Your task to perform on an android device: Search for "acer nitro" on bestbuy, select the first entry, add it to the cart, then select checkout. Image 0: 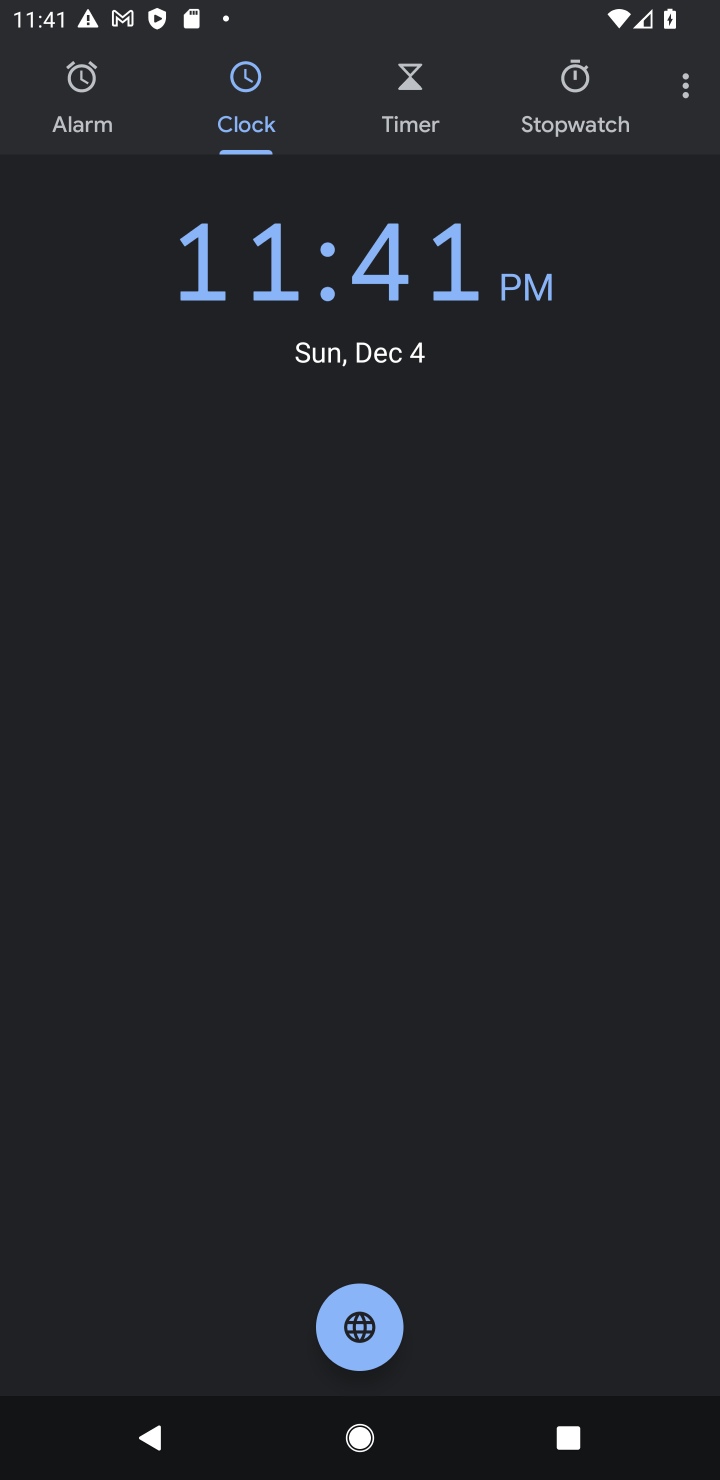
Step 0: press home button
Your task to perform on an android device: Search for "acer nitro" on bestbuy, select the first entry, add it to the cart, then select checkout. Image 1: 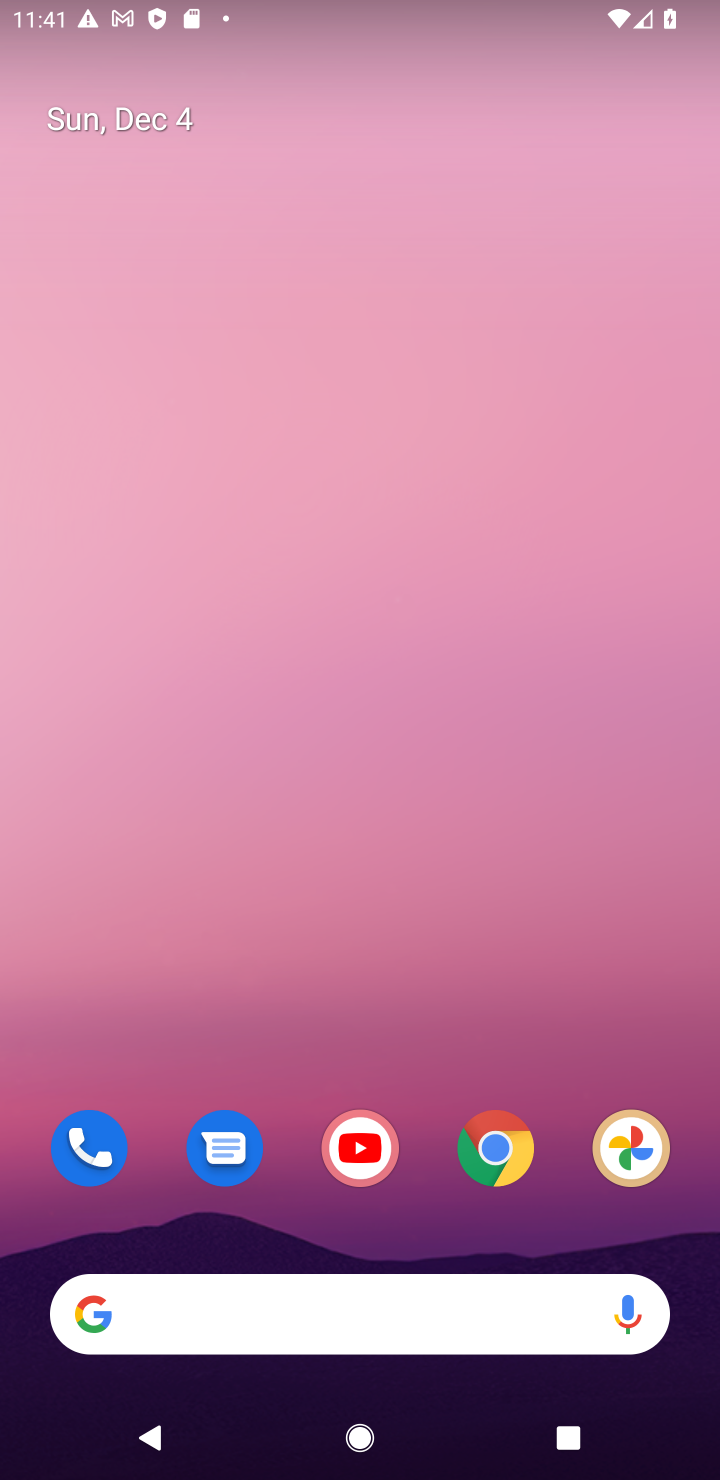
Step 1: drag from (394, 1297) to (363, 377)
Your task to perform on an android device: Search for "acer nitro" on bestbuy, select the first entry, add it to the cart, then select checkout. Image 2: 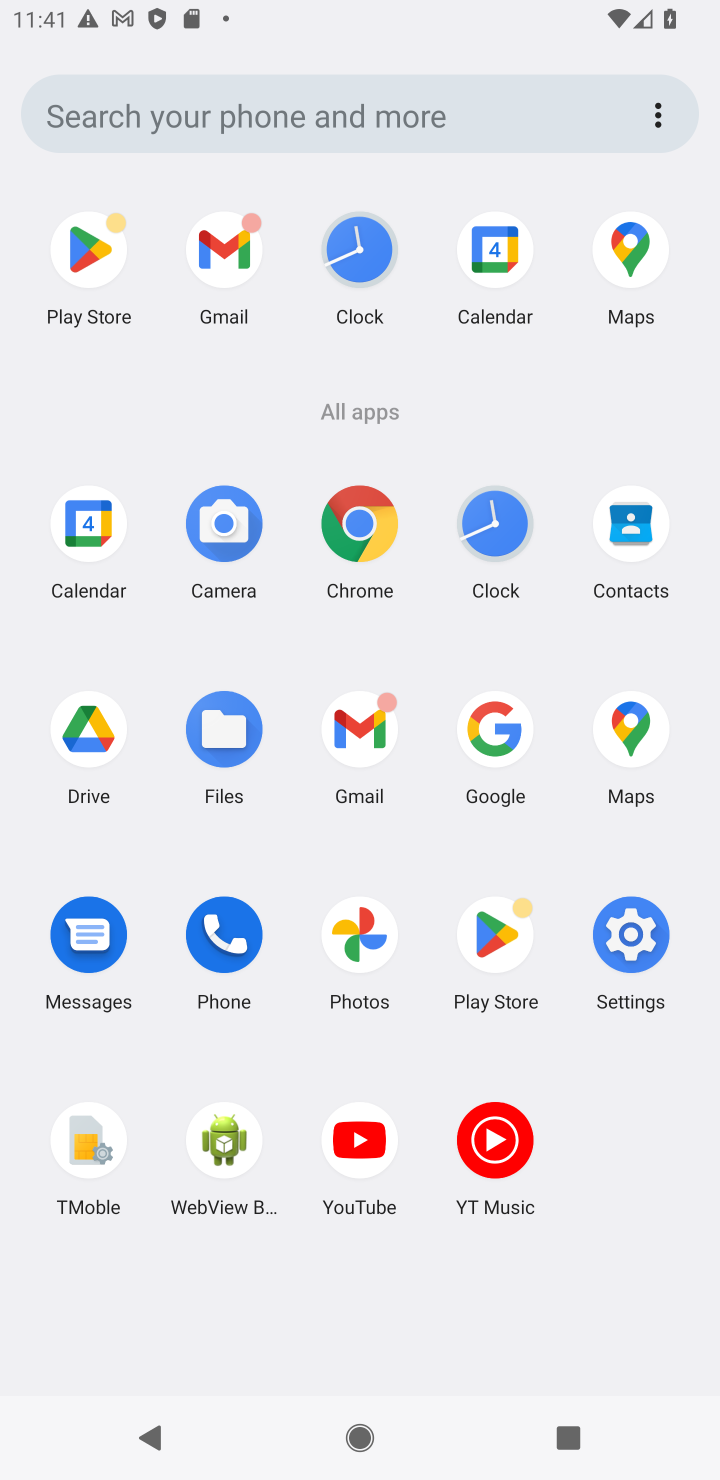
Step 2: click (491, 742)
Your task to perform on an android device: Search for "acer nitro" on bestbuy, select the first entry, add it to the cart, then select checkout. Image 3: 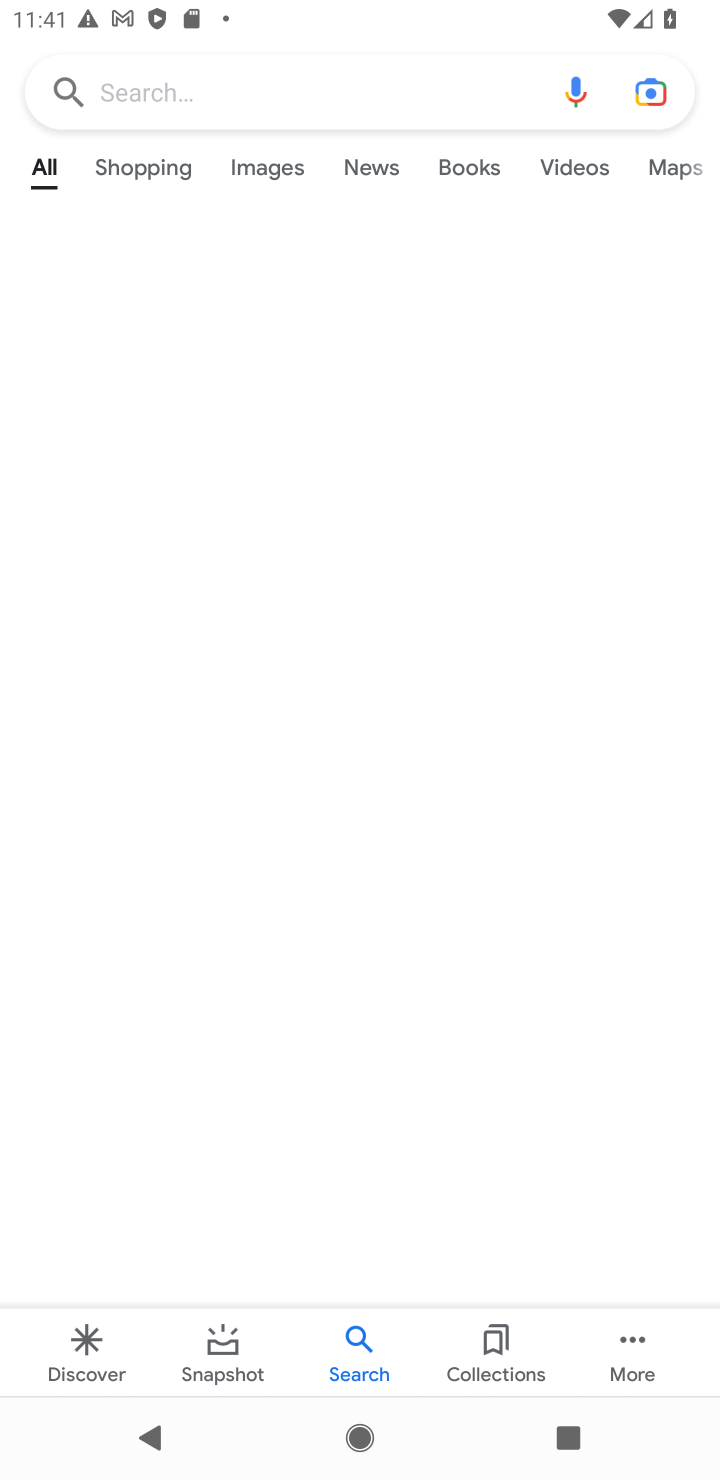
Step 3: click (339, 106)
Your task to perform on an android device: Search for "acer nitro" on bestbuy, select the first entry, add it to the cart, then select checkout. Image 4: 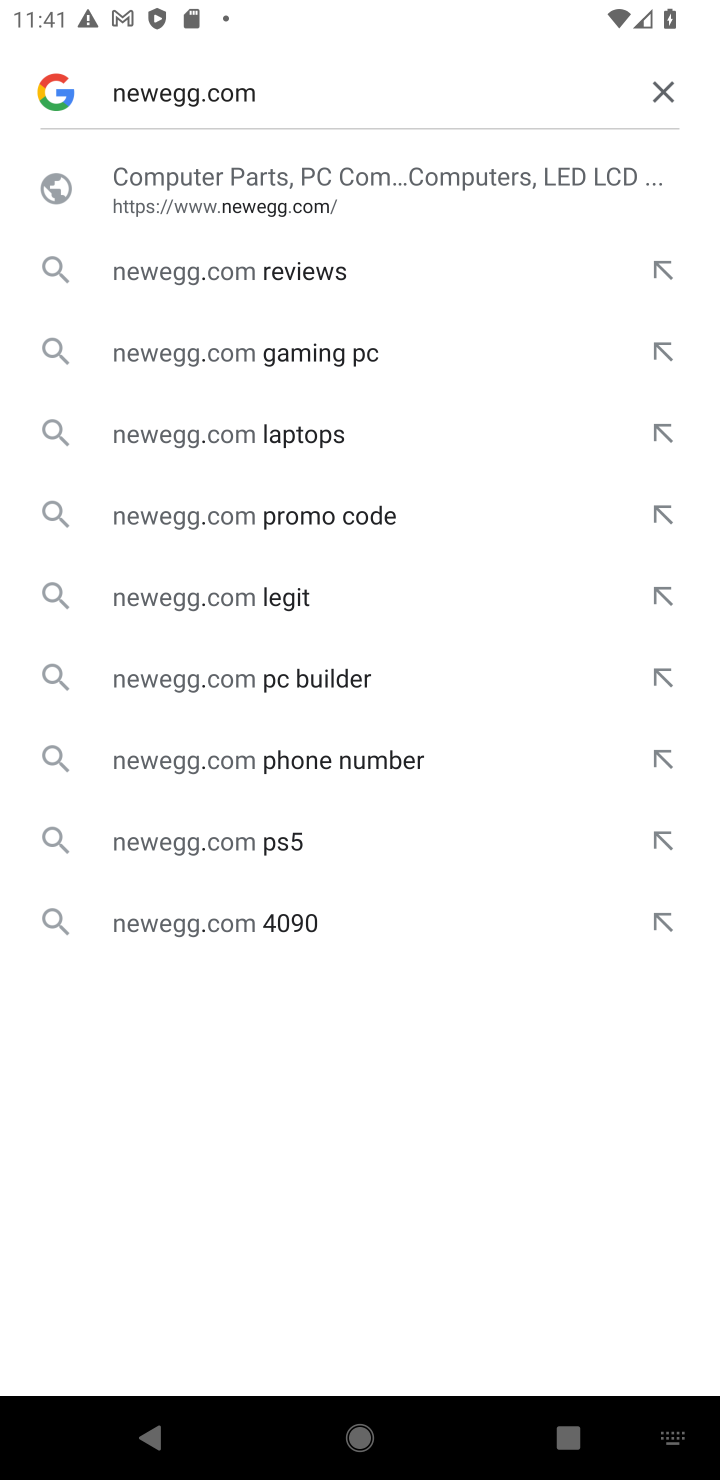
Step 4: click (656, 91)
Your task to perform on an android device: Search for "acer nitro" on bestbuy, select the first entry, add it to the cart, then select checkout. Image 5: 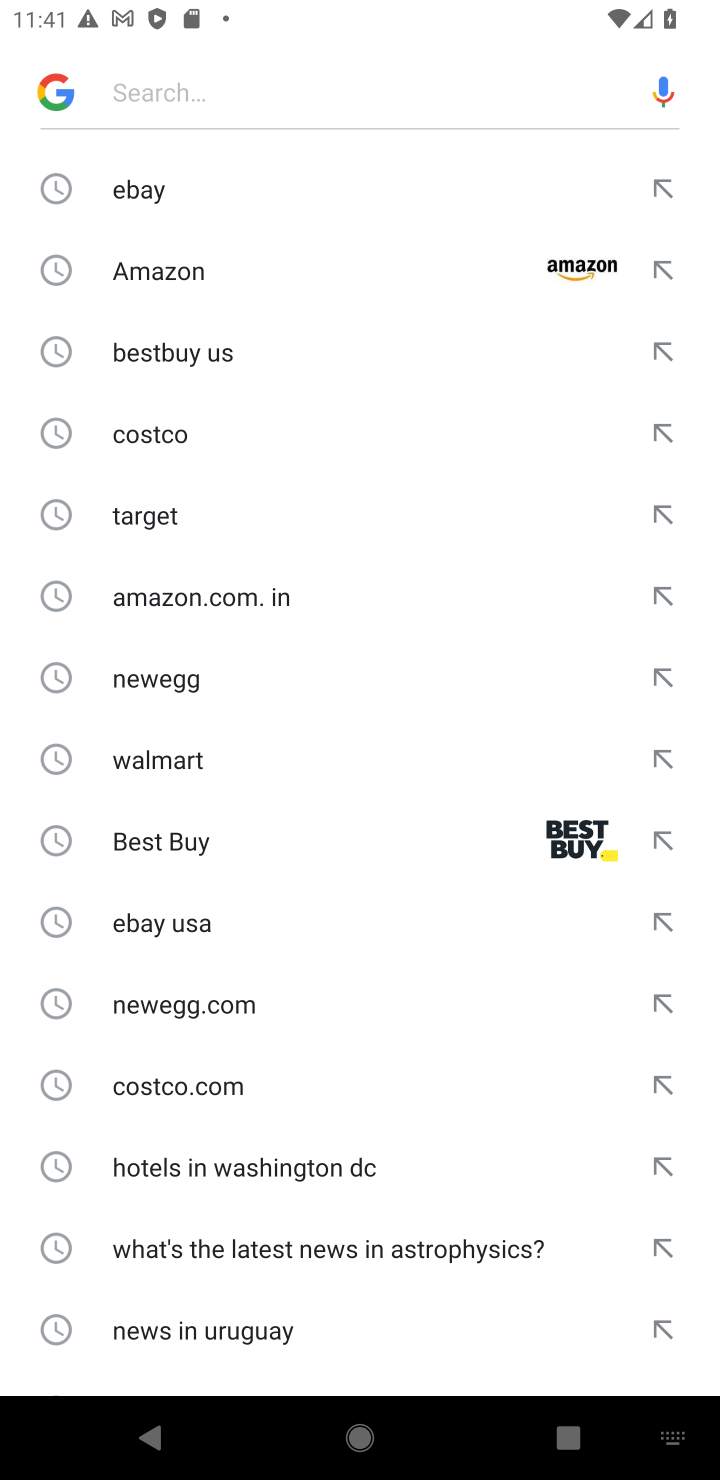
Step 5: click (671, 834)
Your task to perform on an android device: Search for "acer nitro" on bestbuy, select the first entry, add it to the cart, then select checkout. Image 6: 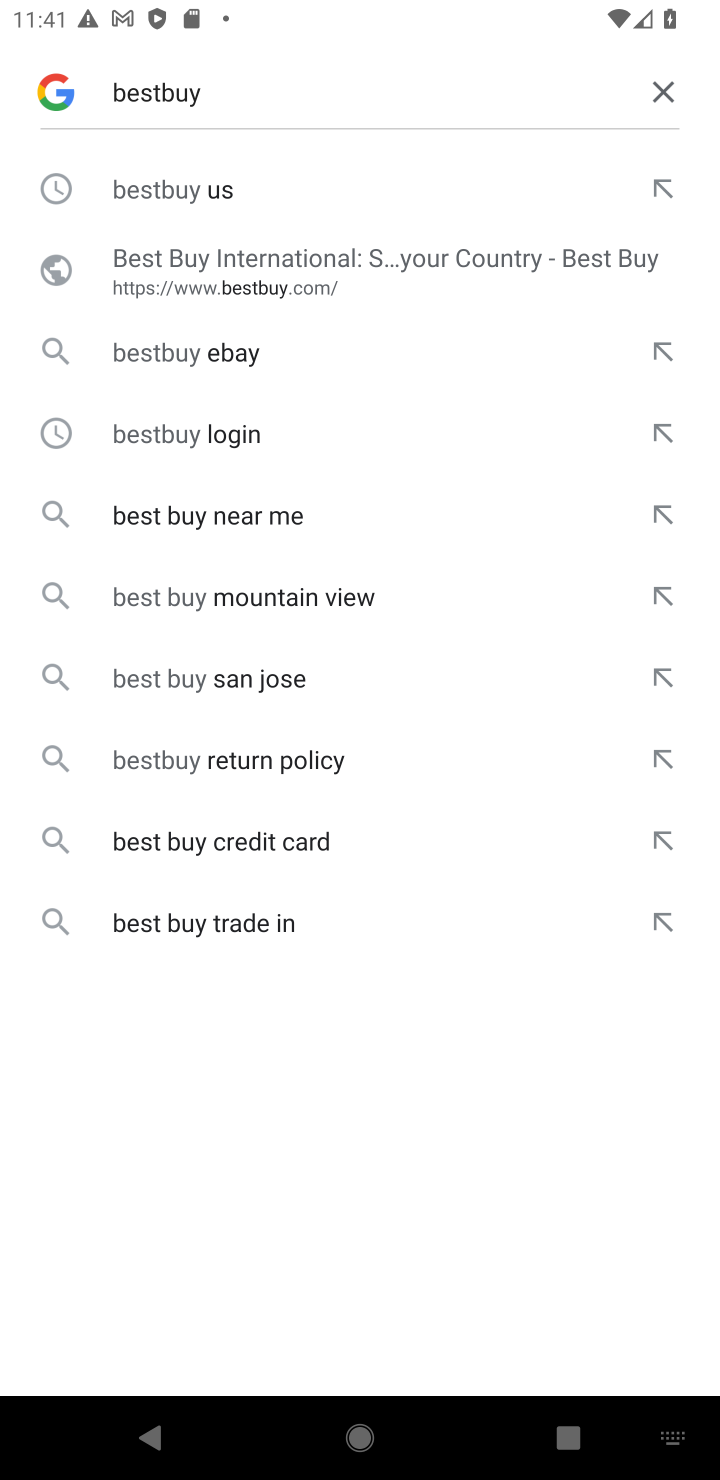
Step 6: click (488, 255)
Your task to perform on an android device: Search for "acer nitro" on bestbuy, select the first entry, add it to the cart, then select checkout. Image 7: 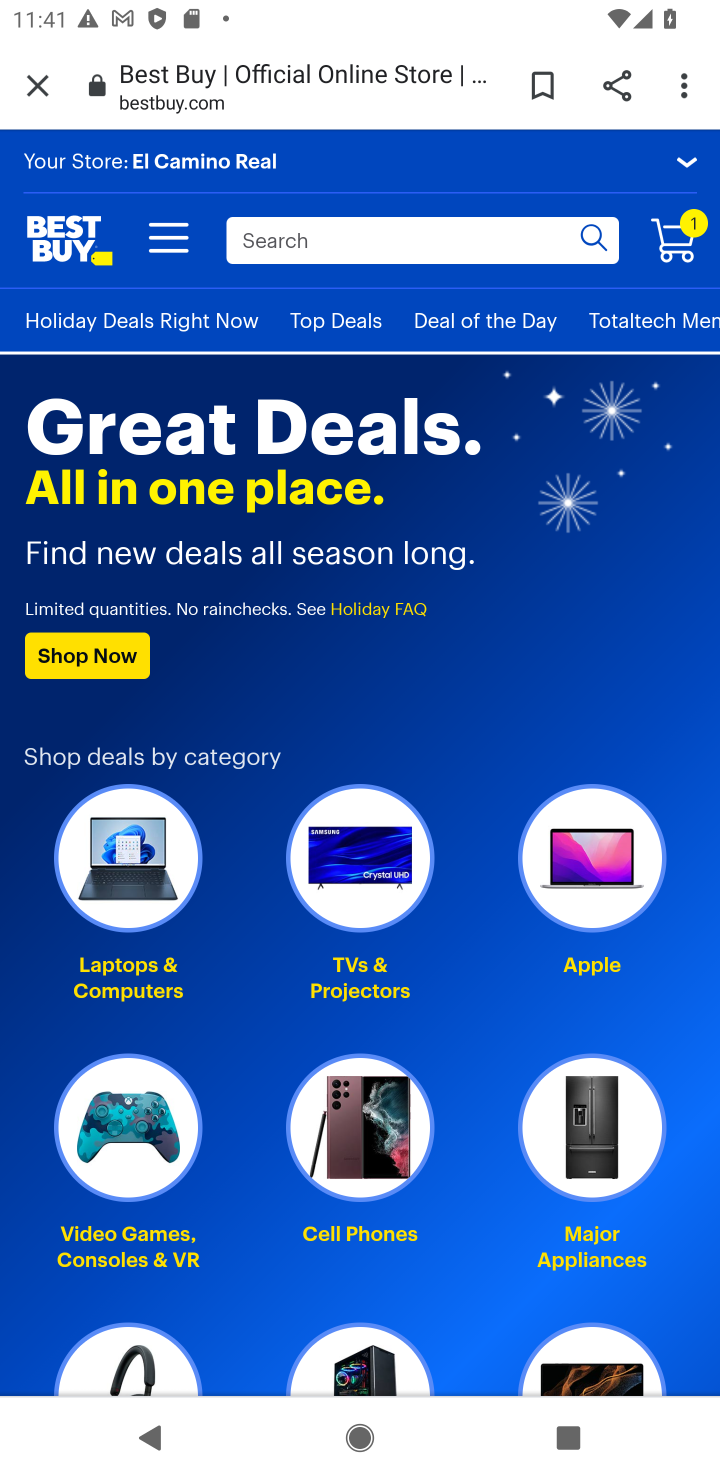
Step 7: click (294, 229)
Your task to perform on an android device: Search for "acer nitro" on bestbuy, select the first entry, add it to the cart, then select checkout. Image 8: 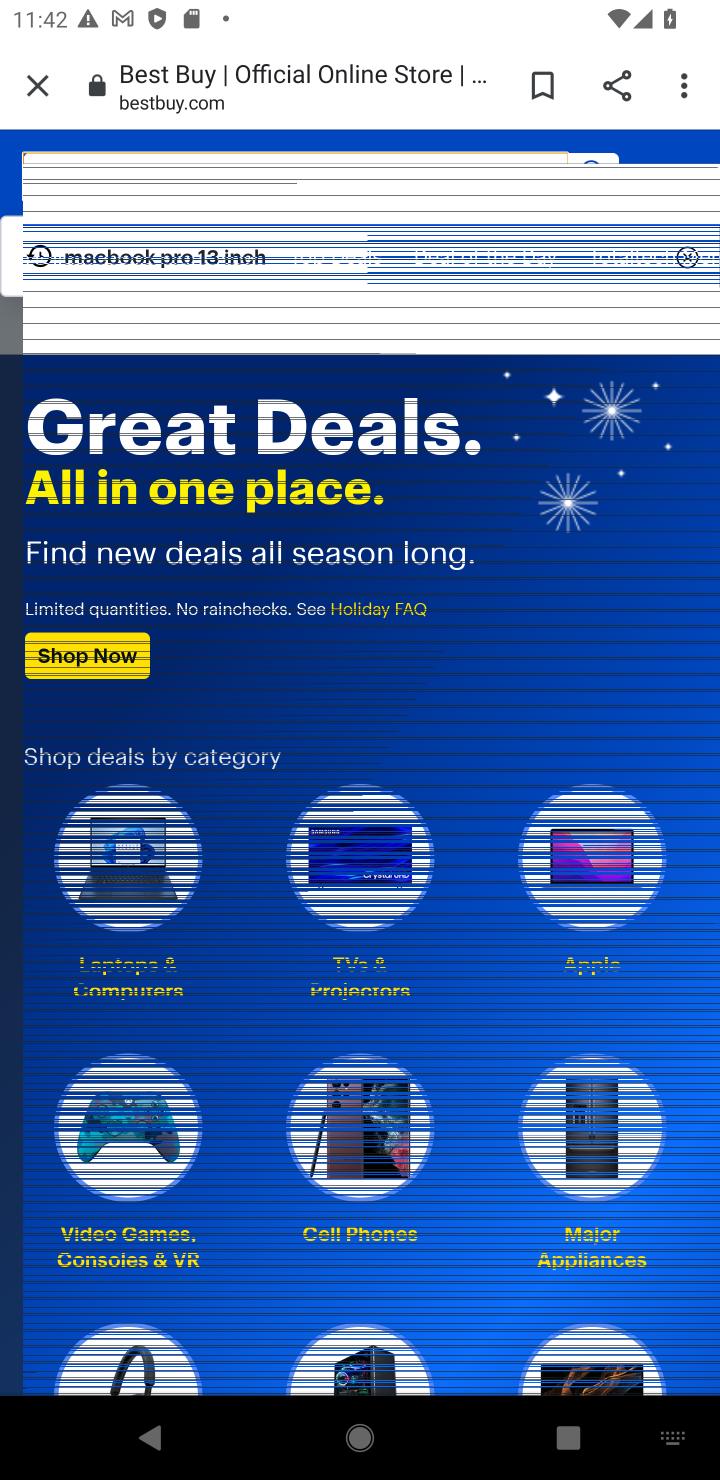
Step 8: type "acer nitro"
Your task to perform on an android device: Search for "acer nitro" on bestbuy, select the first entry, add it to the cart, then select checkout. Image 9: 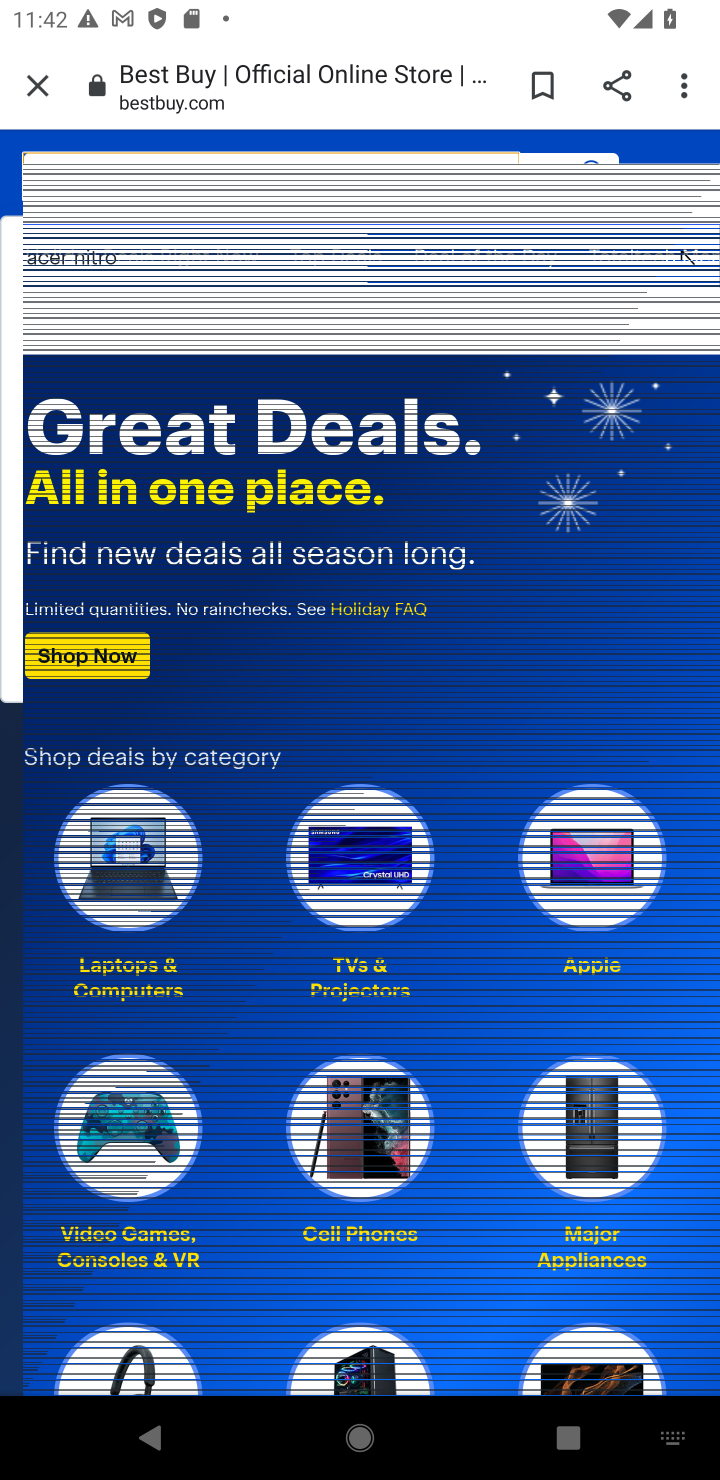
Step 9: click (101, 264)
Your task to perform on an android device: Search for "acer nitro" on bestbuy, select the first entry, add it to the cart, then select checkout. Image 10: 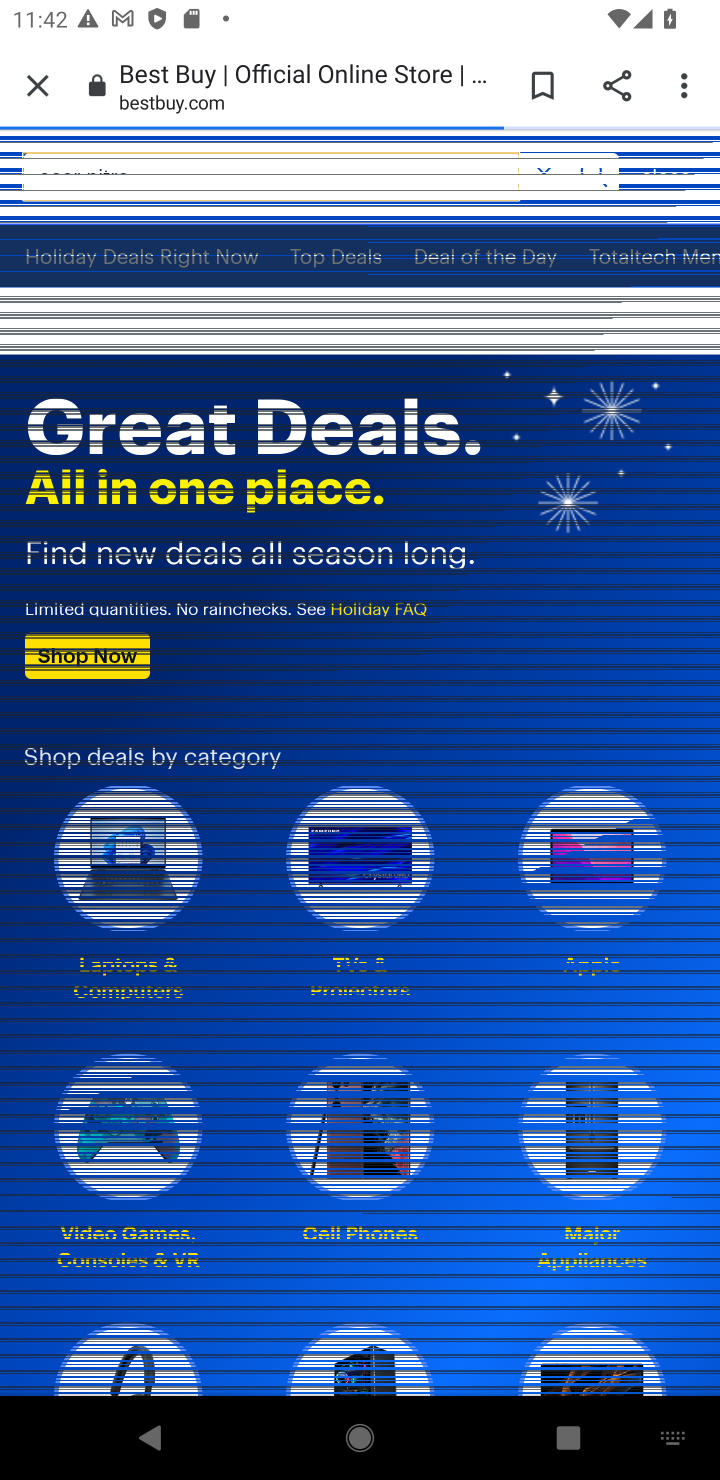
Step 10: click (594, 170)
Your task to perform on an android device: Search for "acer nitro" on bestbuy, select the first entry, add it to the cart, then select checkout. Image 11: 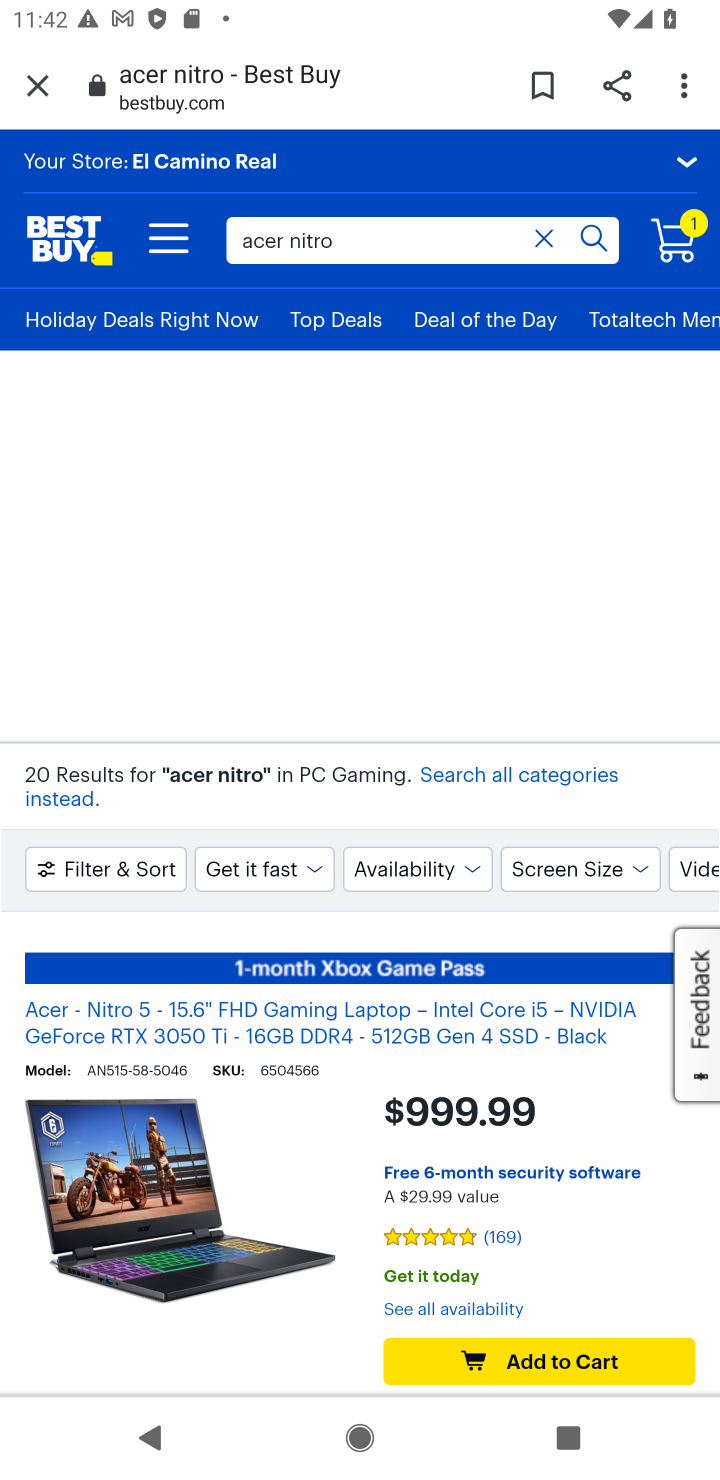
Step 11: click (546, 1354)
Your task to perform on an android device: Search for "acer nitro" on bestbuy, select the first entry, add it to the cart, then select checkout. Image 12: 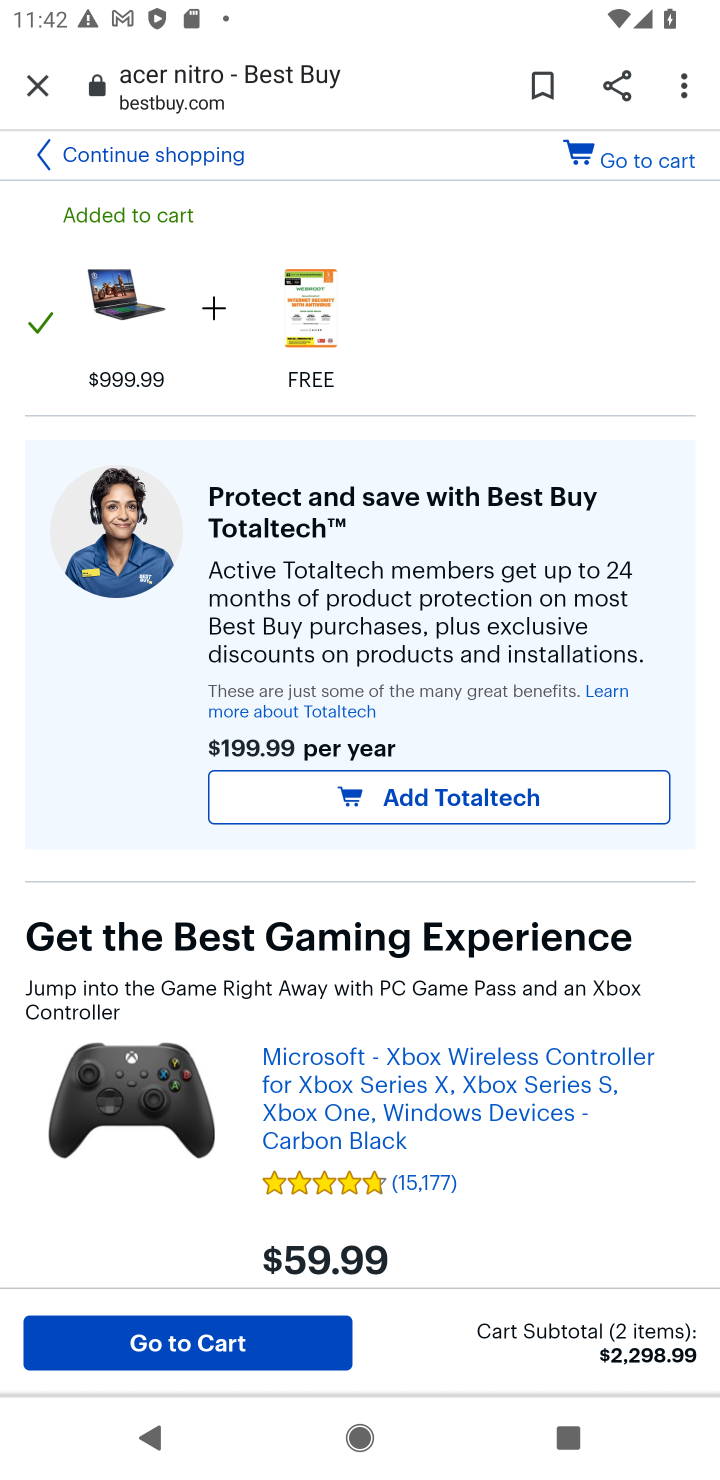
Step 12: drag from (523, 1183) to (467, 633)
Your task to perform on an android device: Search for "acer nitro" on bestbuy, select the first entry, add it to the cart, then select checkout. Image 13: 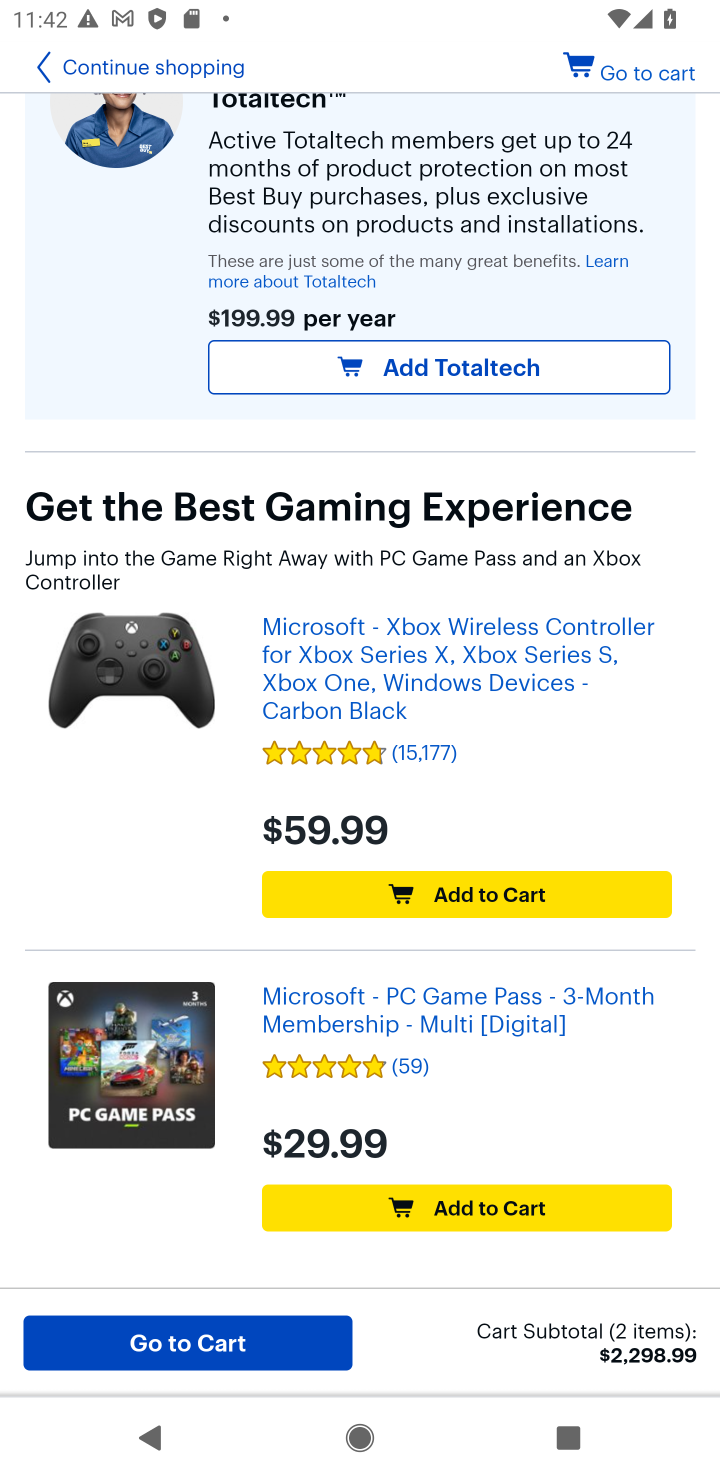
Step 13: drag from (458, 444) to (431, 900)
Your task to perform on an android device: Search for "acer nitro" on bestbuy, select the first entry, add it to the cart, then select checkout. Image 14: 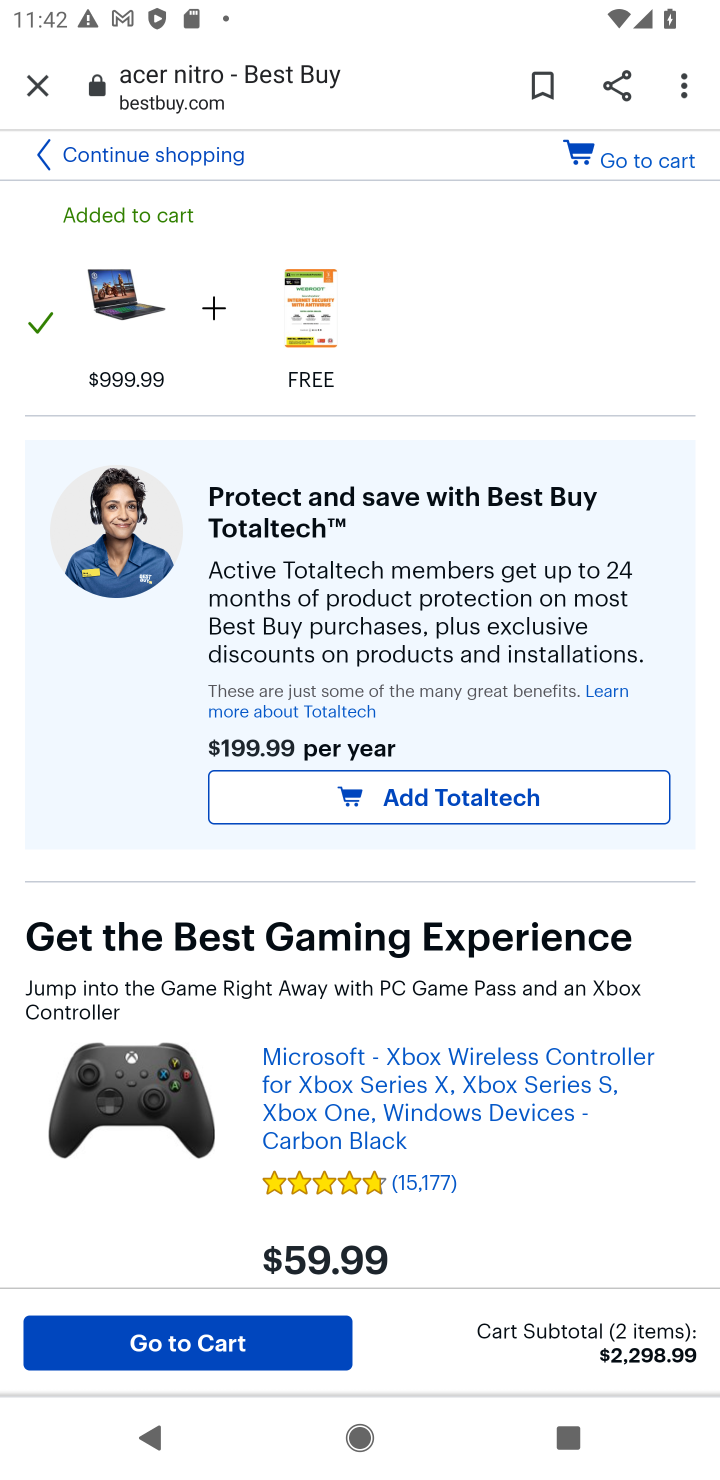
Step 14: click (170, 1345)
Your task to perform on an android device: Search for "acer nitro" on bestbuy, select the first entry, add it to the cart, then select checkout. Image 15: 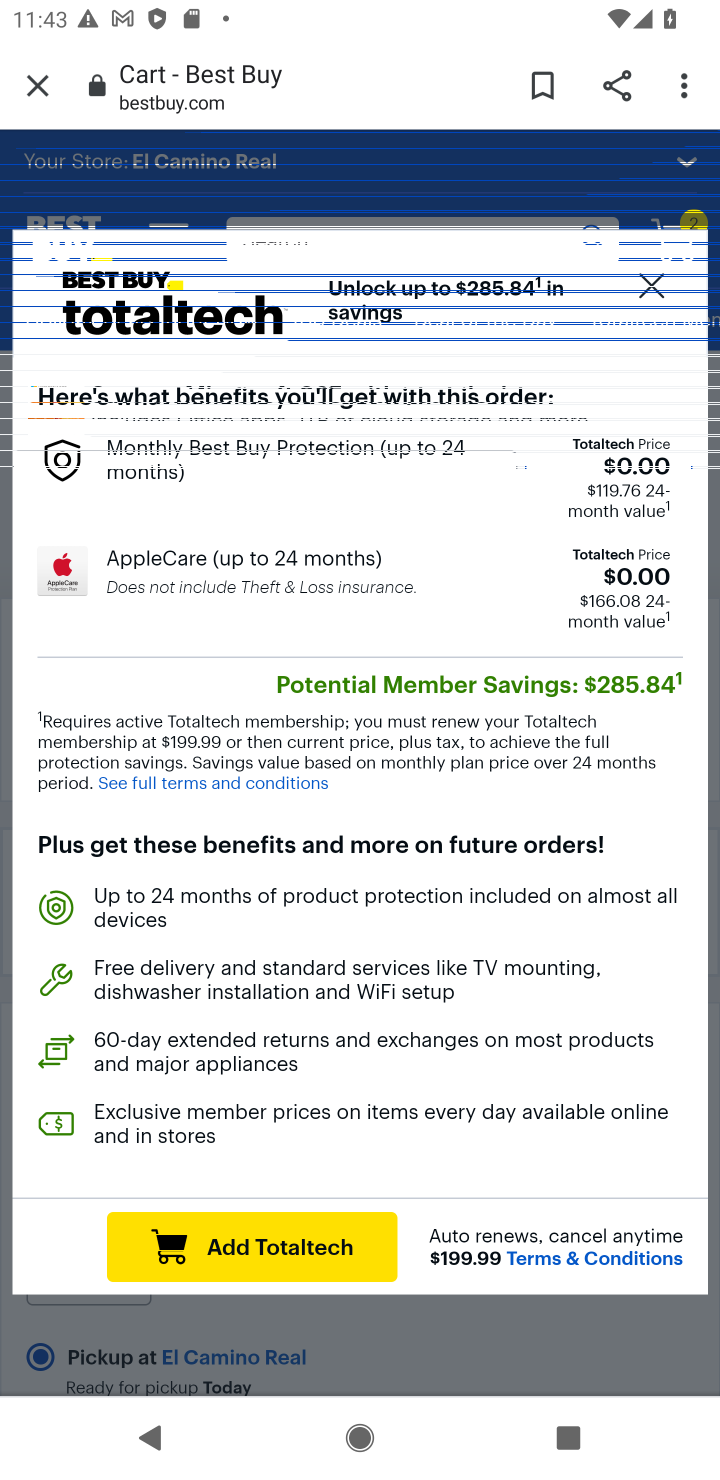
Step 15: click (400, 746)
Your task to perform on an android device: Search for "acer nitro" on bestbuy, select the first entry, add it to the cart, then select checkout. Image 16: 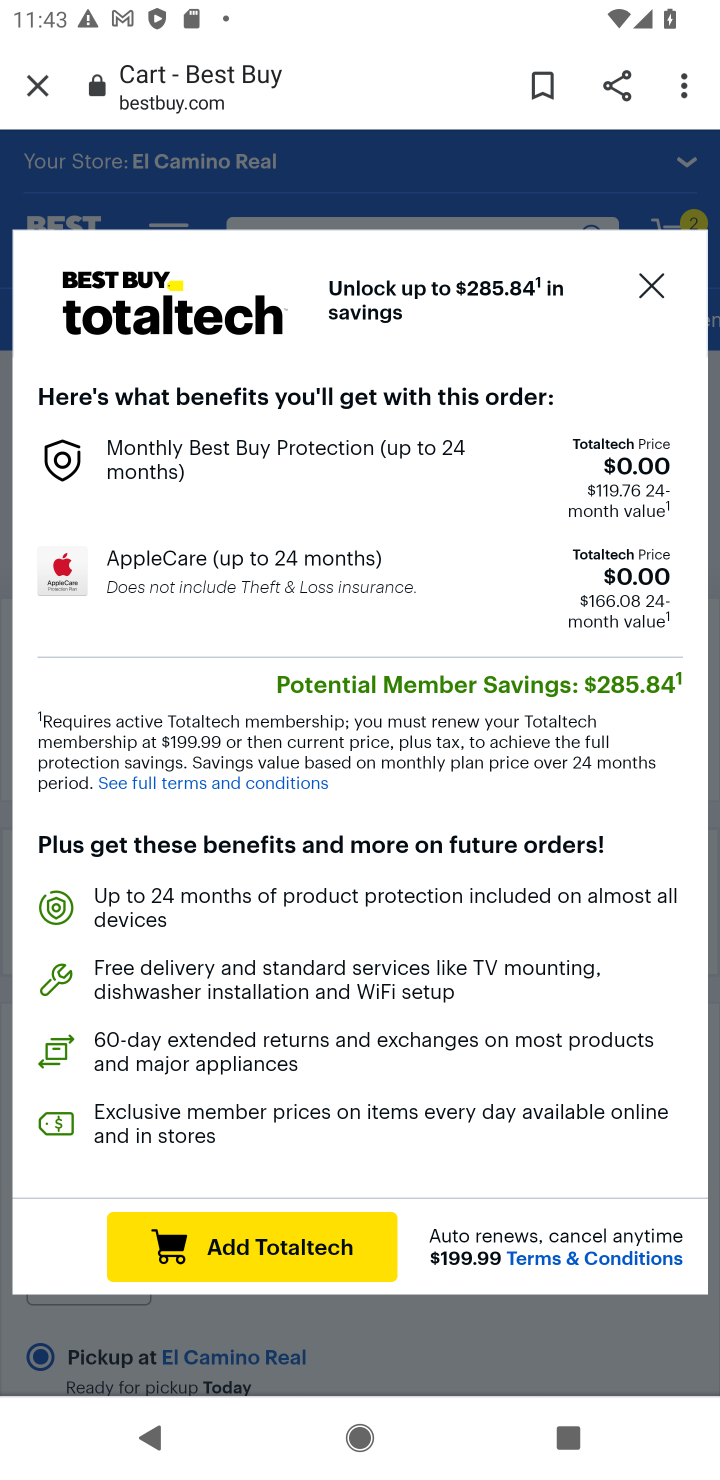
Step 16: click (652, 275)
Your task to perform on an android device: Search for "acer nitro" on bestbuy, select the first entry, add it to the cart, then select checkout. Image 17: 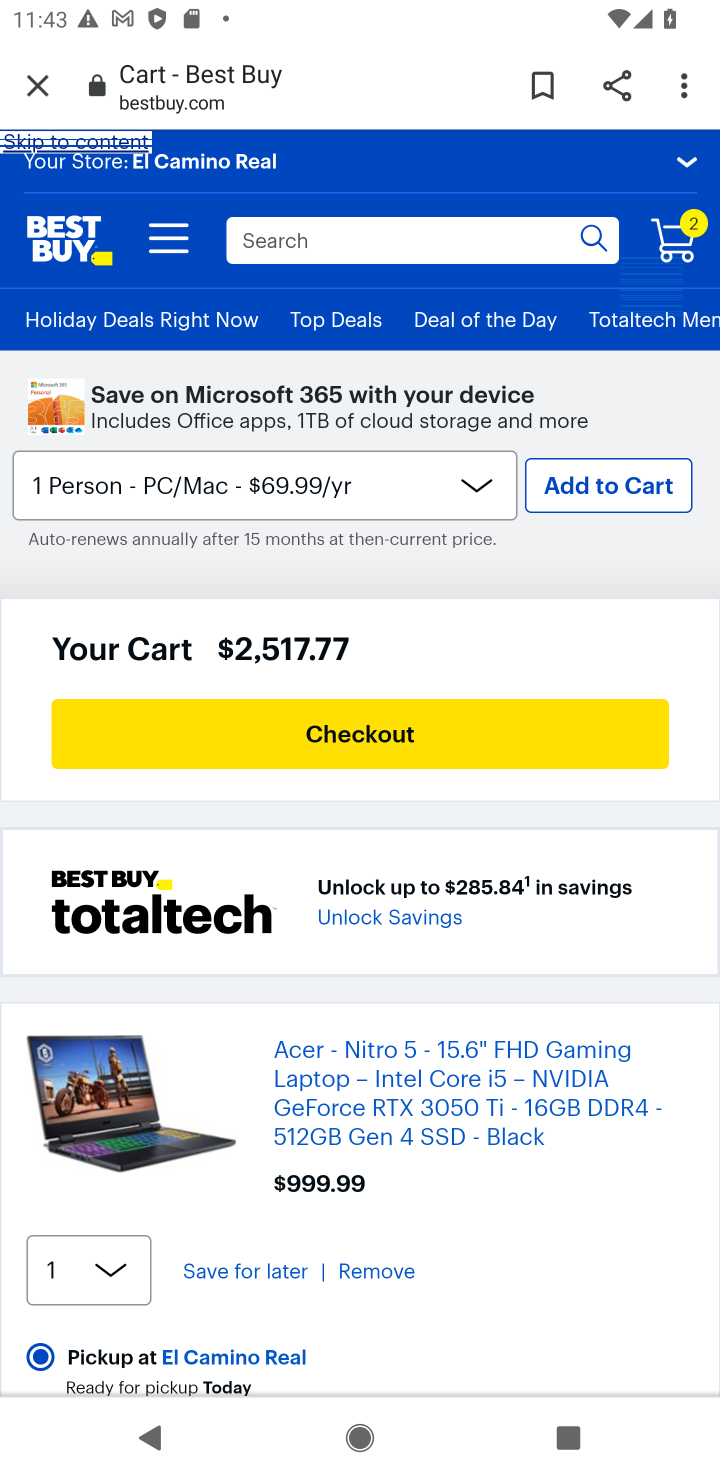
Step 17: click (504, 738)
Your task to perform on an android device: Search for "acer nitro" on bestbuy, select the first entry, add it to the cart, then select checkout. Image 18: 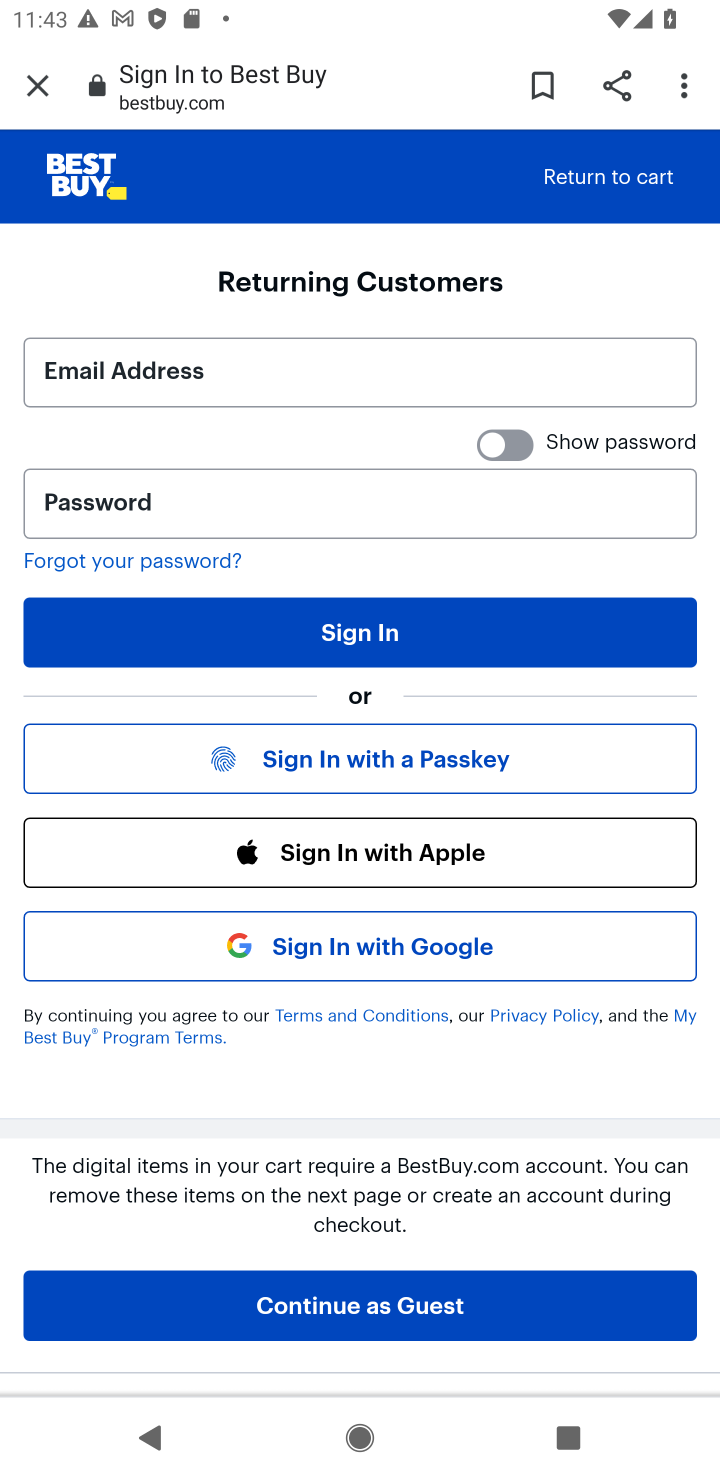
Step 18: task complete